Your task to perform on an android device: What's on my calendar tomorrow? Image 0: 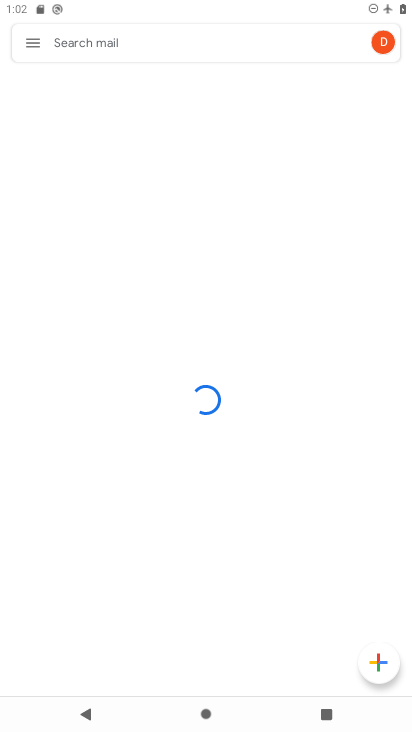
Step 0: press home button
Your task to perform on an android device: What's on my calendar tomorrow? Image 1: 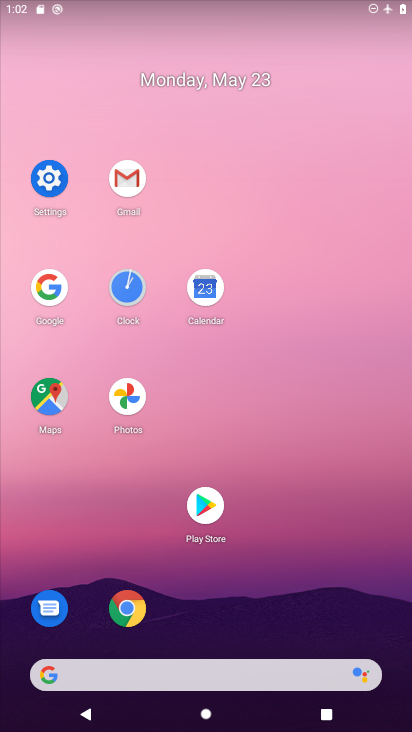
Step 1: click (199, 285)
Your task to perform on an android device: What's on my calendar tomorrow? Image 2: 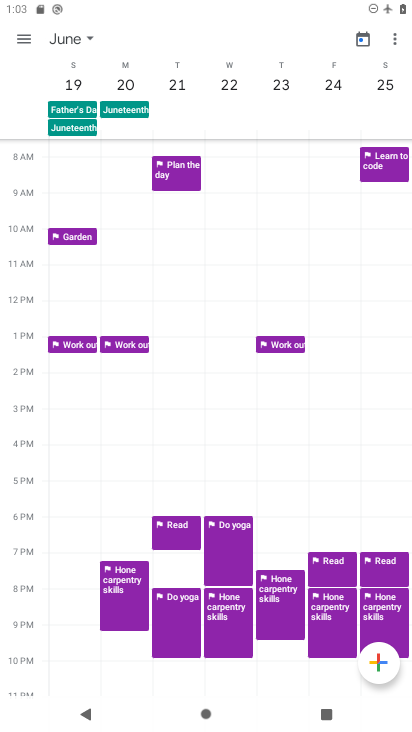
Step 2: click (82, 47)
Your task to perform on an android device: What's on my calendar tomorrow? Image 3: 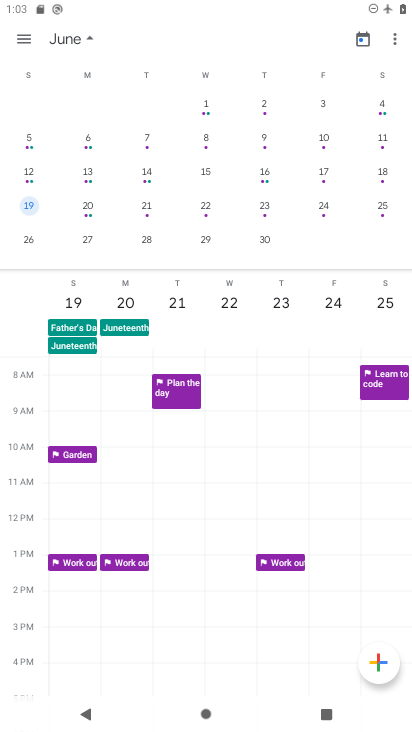
Step 3: click (88, 33)
Your task to perform on an android device: What's on my calendar tomorrow? Image 4: 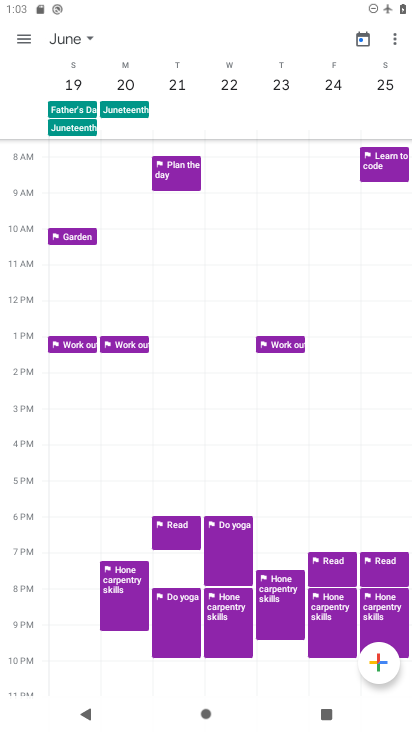
Step 4: drag from (56, 164) to (383, 117)
Your task to perform on an android device: What's on my calendar tomorrow? Image 5: 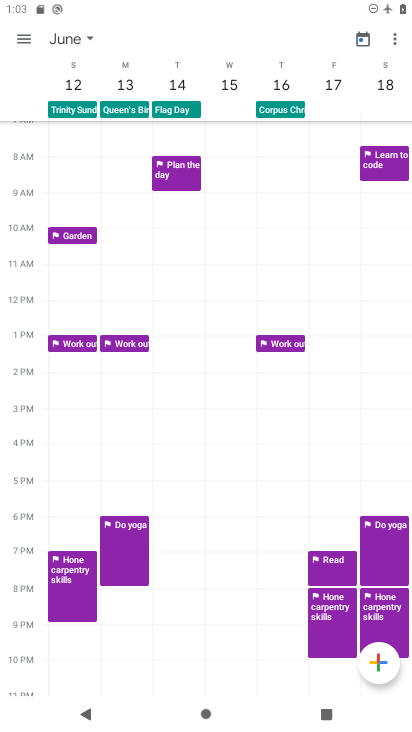
Step 5: click (79, 44)
Your task to perform on an android device: What's on my calendar tomorrow? Image 6: 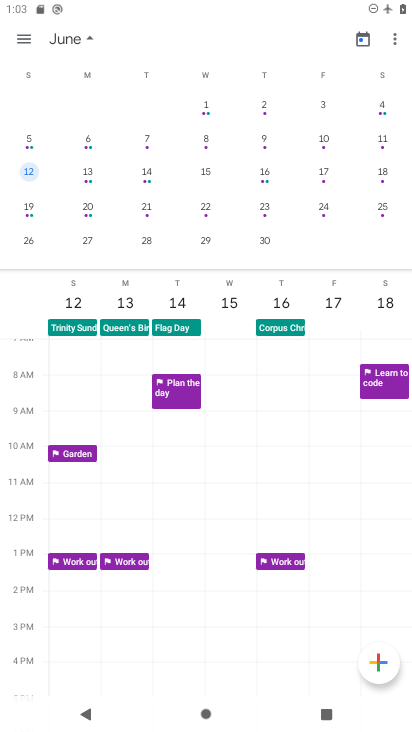
Step 6: drag from (42, 180) to (342, 180)
Your task to perform on an android device: What's on my calendar tomorrow? Image 7: 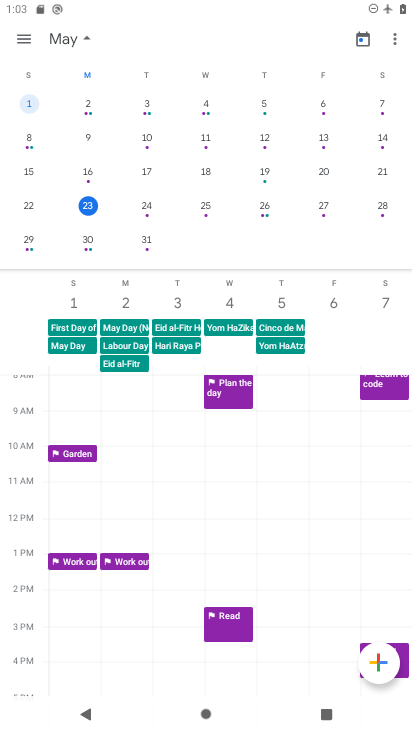
Step 7: click (143, 210)
Your task to perform on an android device: What's on my calendar tomorrow? Image 8: 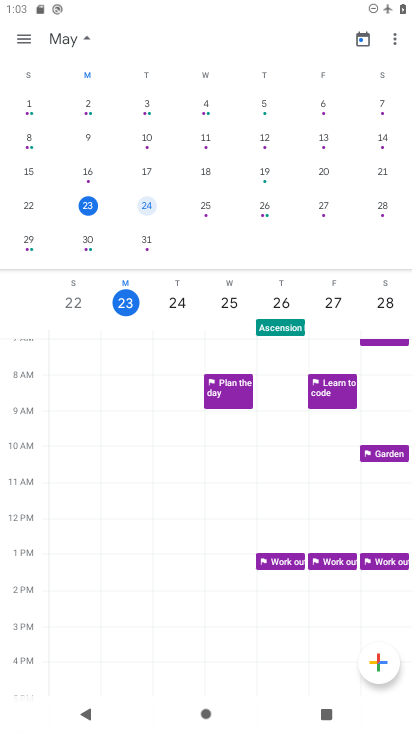
Step 8: click (182, 298)
Your task to perform on an android device: What's on my calendar tomorrow? Image 9: 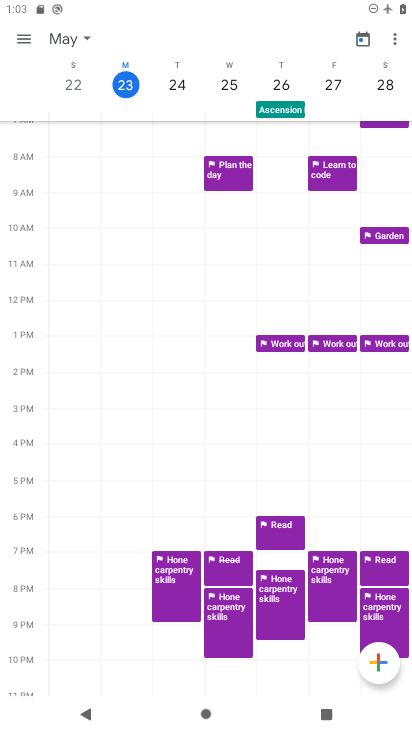
Step 9: task complete